Your task to perform on an android device: Go to location settings Image 0: 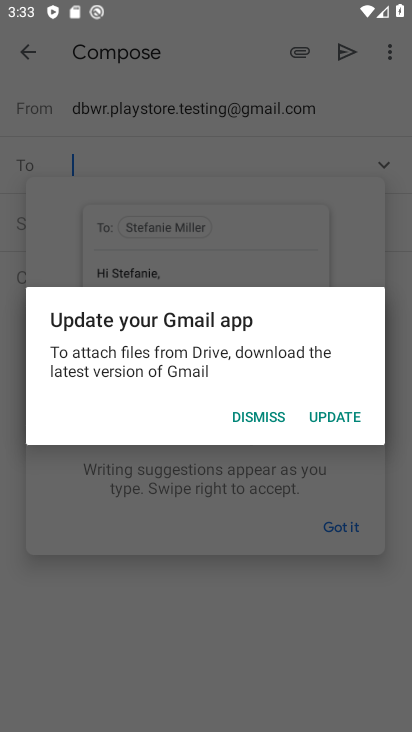
Step 0: press home button
Your task to perform on an android device: Go to location settings Image 1: 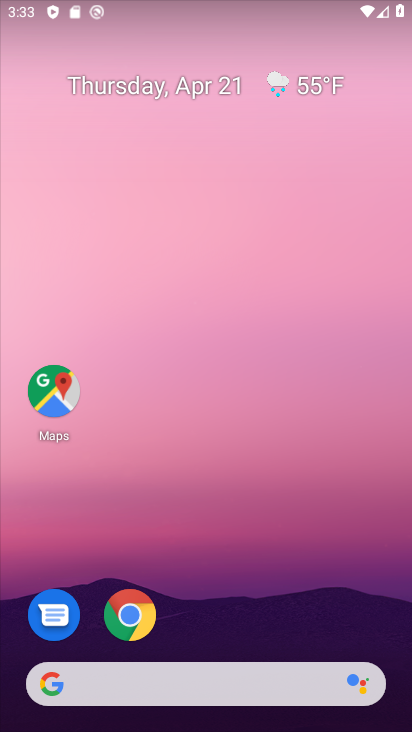
Step 1: drag from (210, 628) to (217, 6)
Your task to perform on an android device: Go to location settings Image 2: 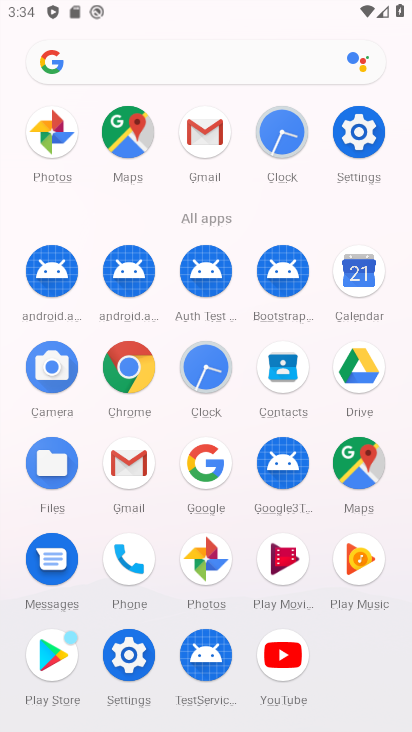
Step 2: click (354, 133)
Your task to perform on an android device: Go to location settings Image 3: 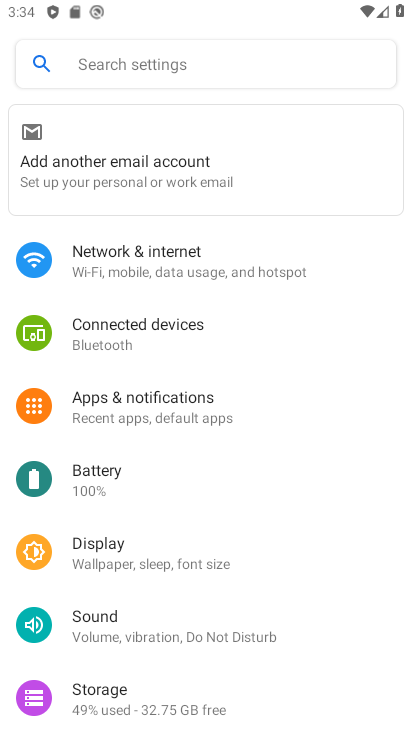
Step 3: drag from (239, 464) to (239, 159)
Your task to perform on an android device: Go to location settings Image 4: 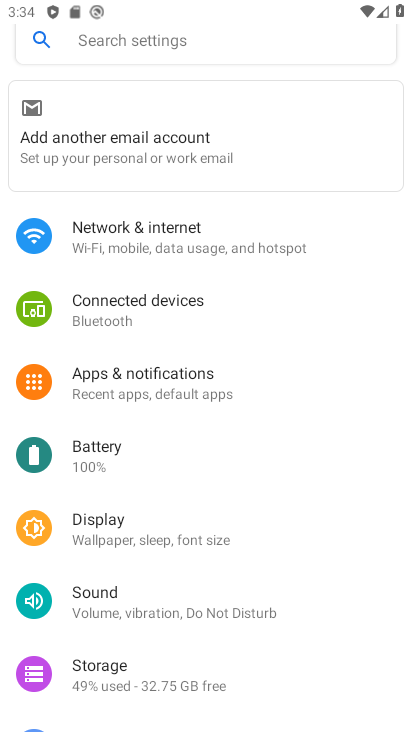
Step 4: drag from (133, 575) to (130, 185)
Your task to perform on an android device: Go to location settings Image 5: 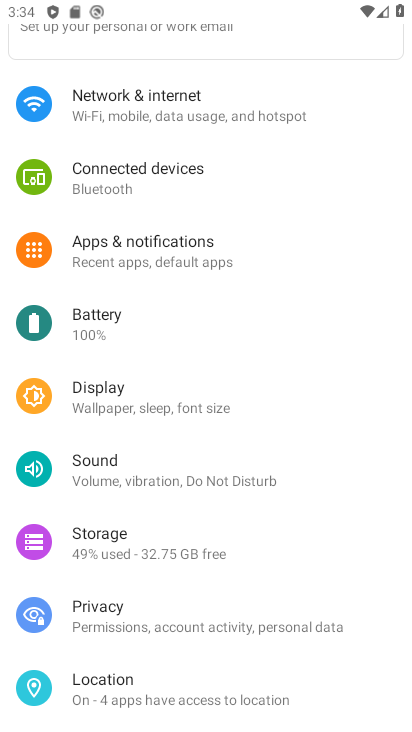
Step 5: click (119, 675)
Your task to perform on an android device: Go to location settings Image 6: 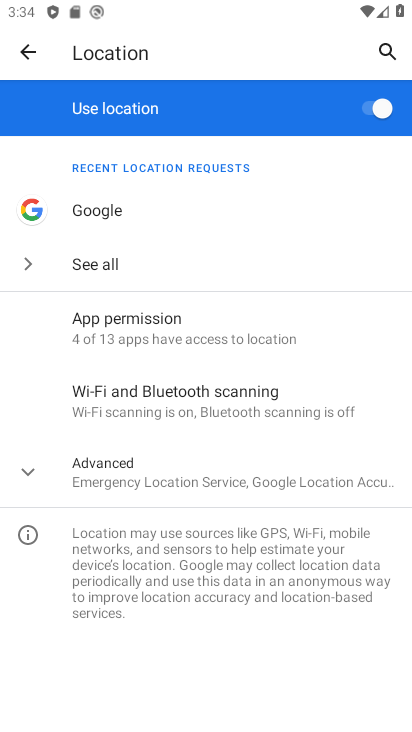
Step 6: click (196, 476)
Your task to perform on an android device: Go to location settings Image 7: 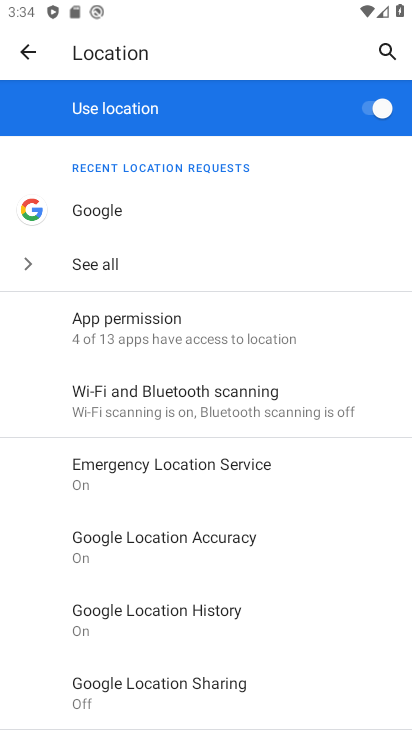
Step 7: task complete